Your task to perform on an android device: Search for "logitech g910" on costco.com, select the first entry, add it to the cart, then select checkout. Image 0: 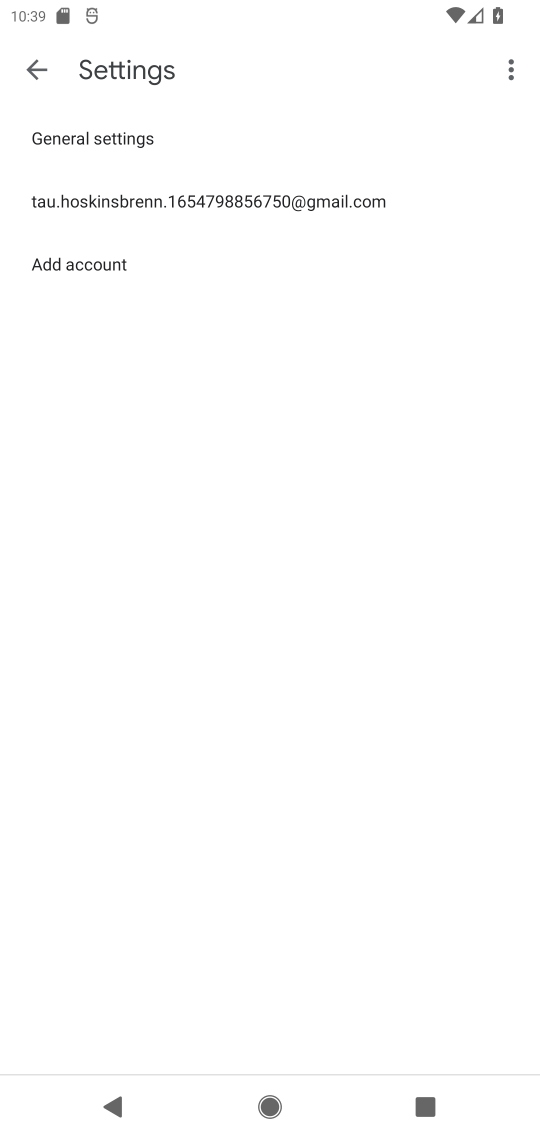
Step 0: press home button
Your task to perform on an android device: Search for "logitech g910" on costco.com, select the first entry, add it to the cart, then select checkout. Image 1: 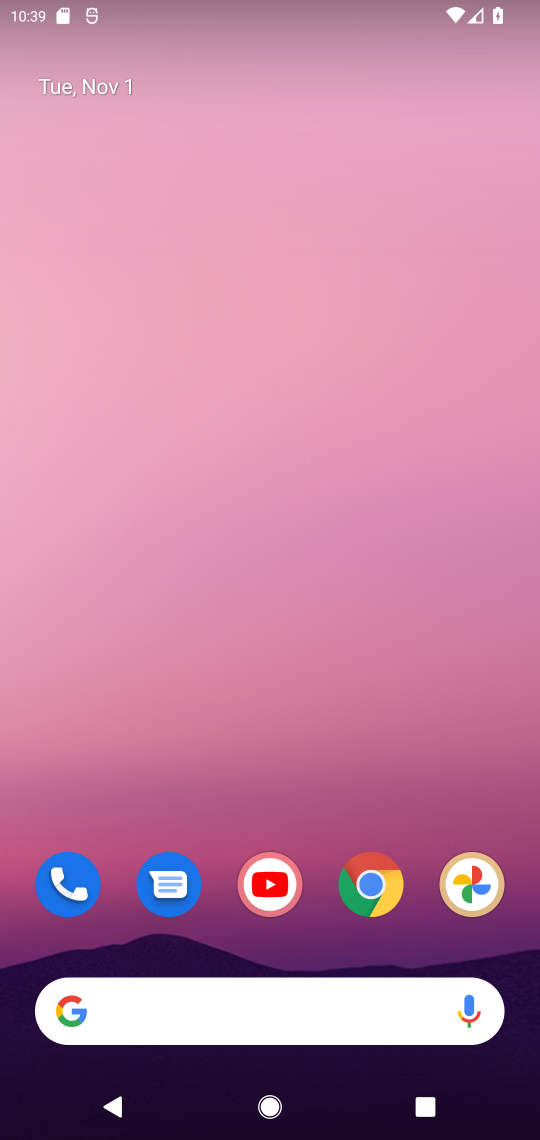
Step 1: click (379, 885)
Your task to perform on an android device: Search for "logitech g910" on costco.com, select the first entry, add it to the cart, then select checkout. Image 2: 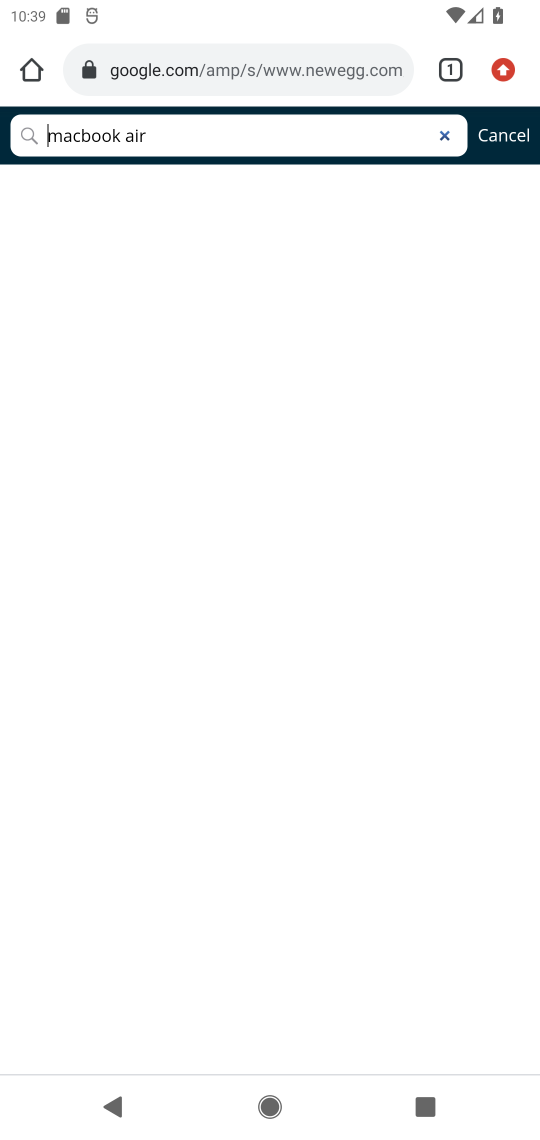
Step 2: click (216, 78)
Your task to perform on an android device: Search for "logitech g910" on costco.com, select the first entry, add it to the cart, then select checkout. Image 3: 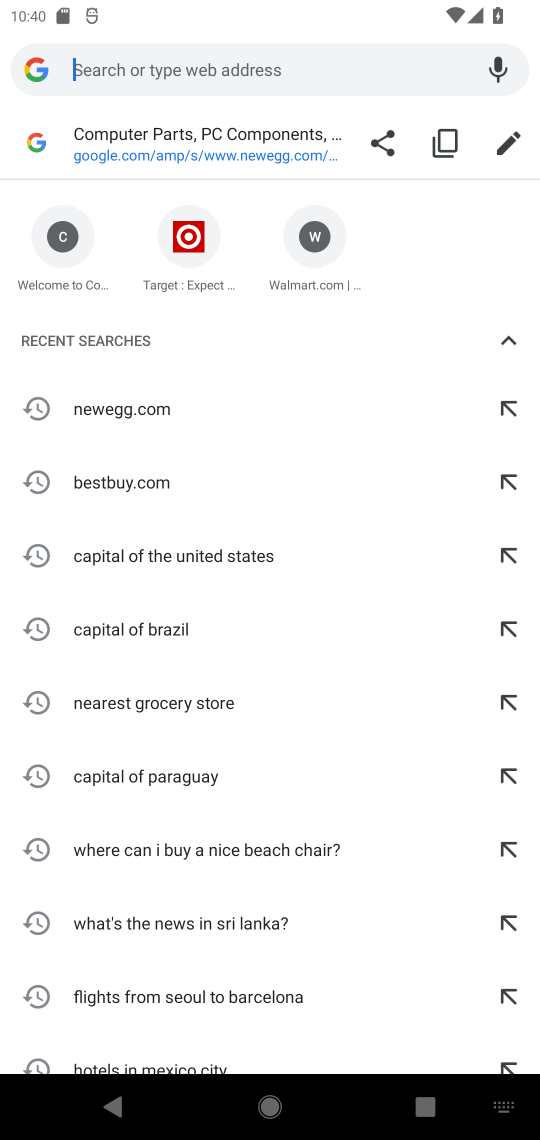
Step 3: click (176, 79)
Your task to perform on an android device: Search for "logitech g910" on costco.com, select the first entry, add it to the cart, then select checkout. Image 4: 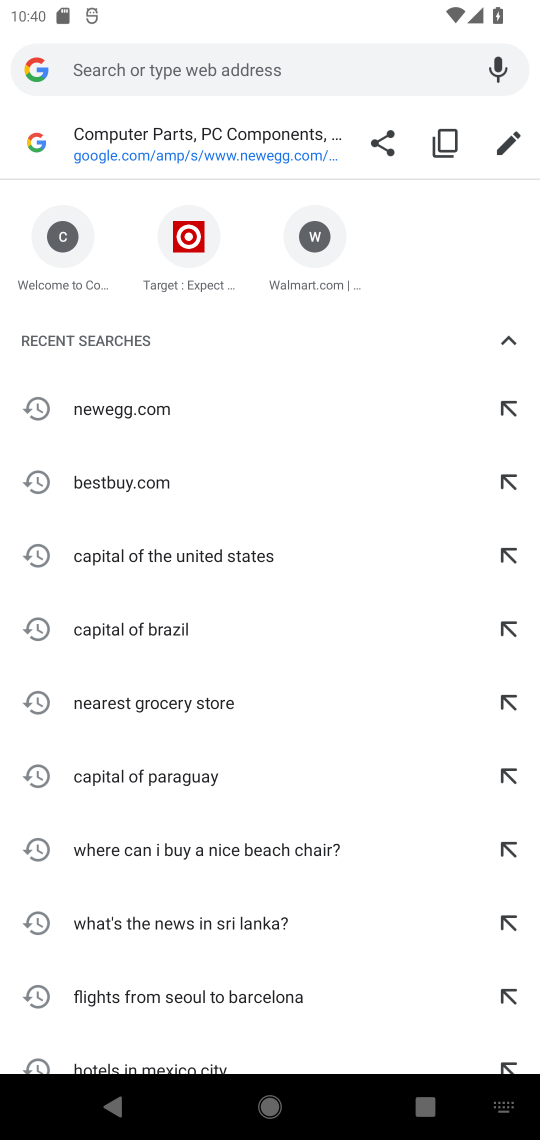
Step 4: type "costco.com"
Your task to perform on an android device: Search for "logitech g910" on costco.com, select the first entry, add it to the cart, then select checkout. Image 5: 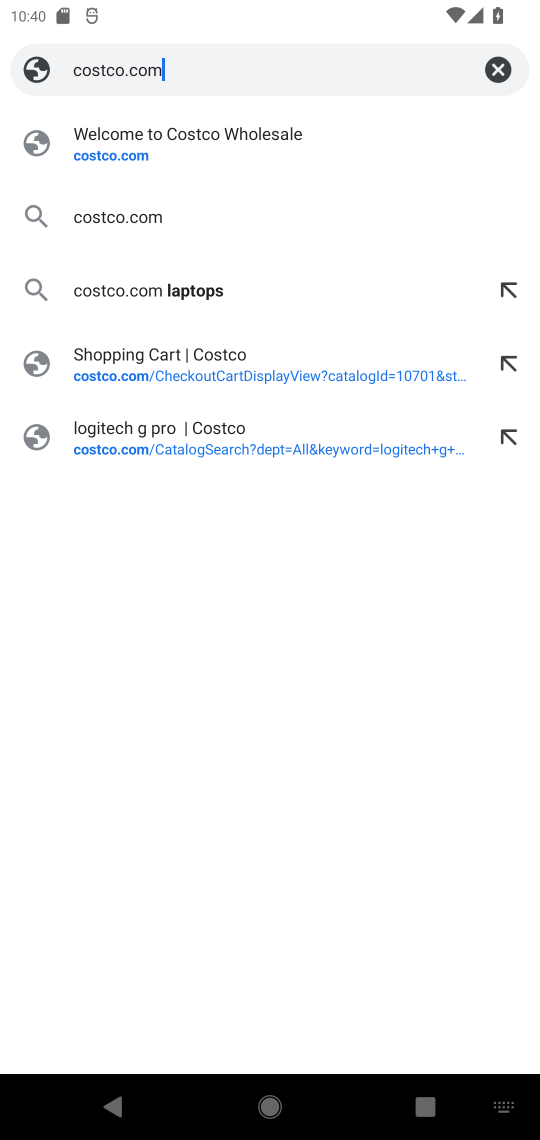
Step 5: click (113, 163)
Your task to perform on an android device: Search for "logitech g910" on costco.com, select the first entry, add it to the cart, then select checkout. Image 6: 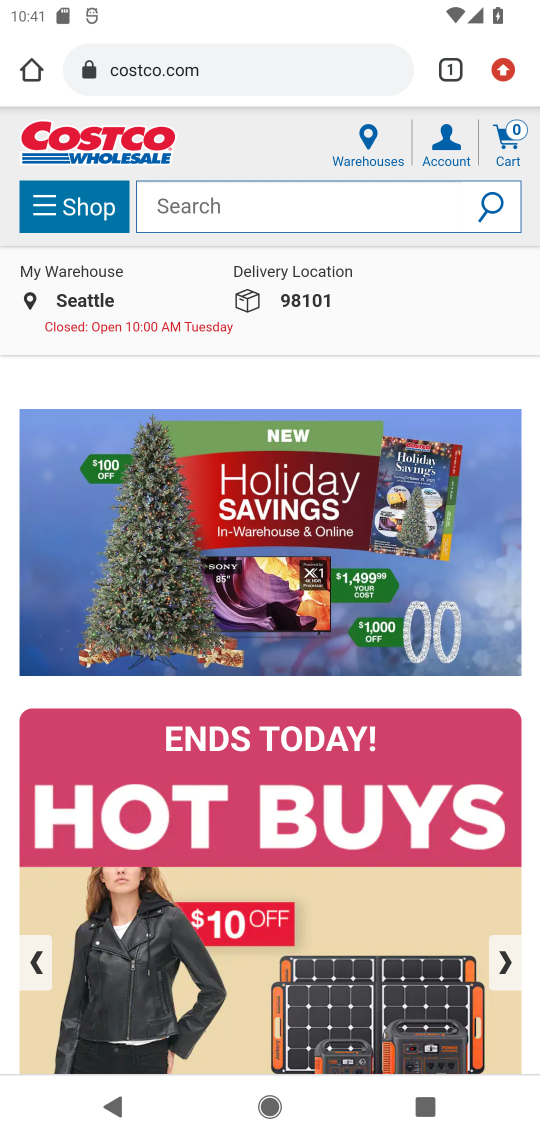
Step 6: click (177, 205)
Your task to perform on an android device: Search for "logitech g910" on costco.com, select the first entry, add it to the cart, then select checkout. Image 7: 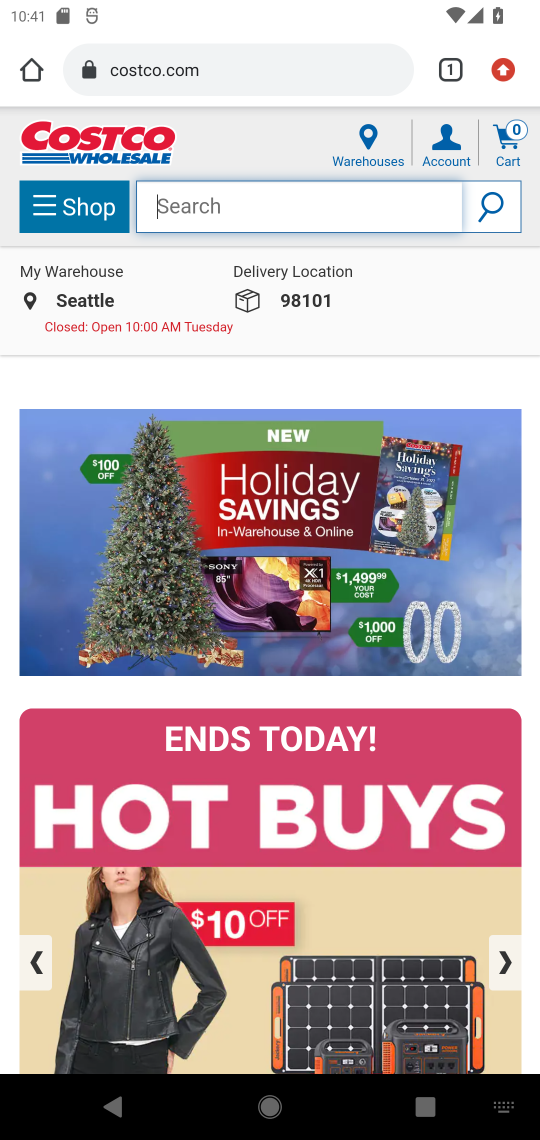
Step 7: type "logitech g910"
Your task to perform on an android device: Search for "logitech g910" on costco.com, select the first entry, add it to the cart, then select checkout. Image 8: 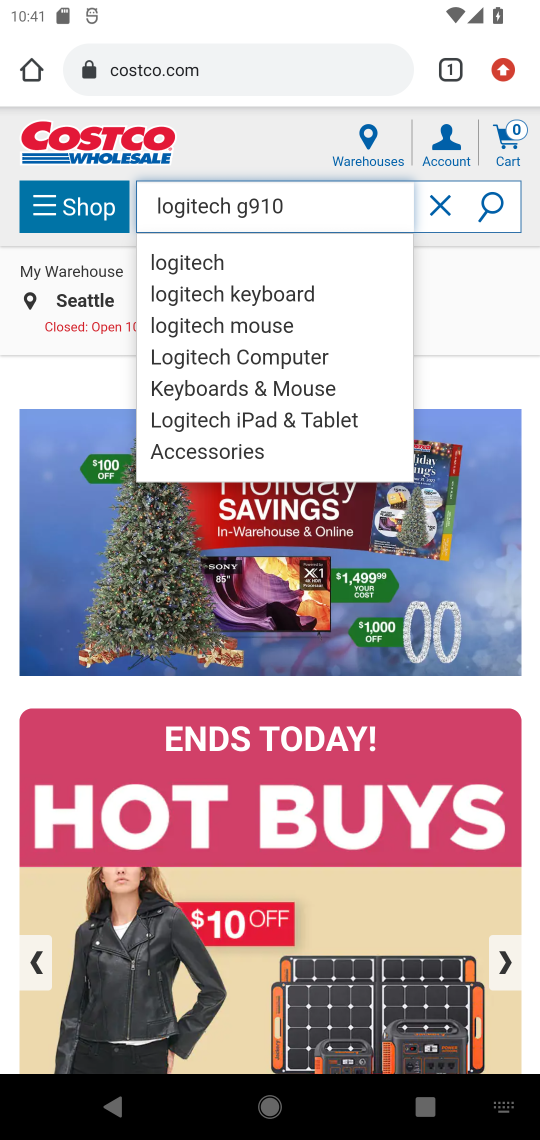
Step 8: click (484, 207)
Your task to perform on an android device: Search for "logitech g910" on costco.com, select the first entry, add it to the cart, then select checkout. Image 9: 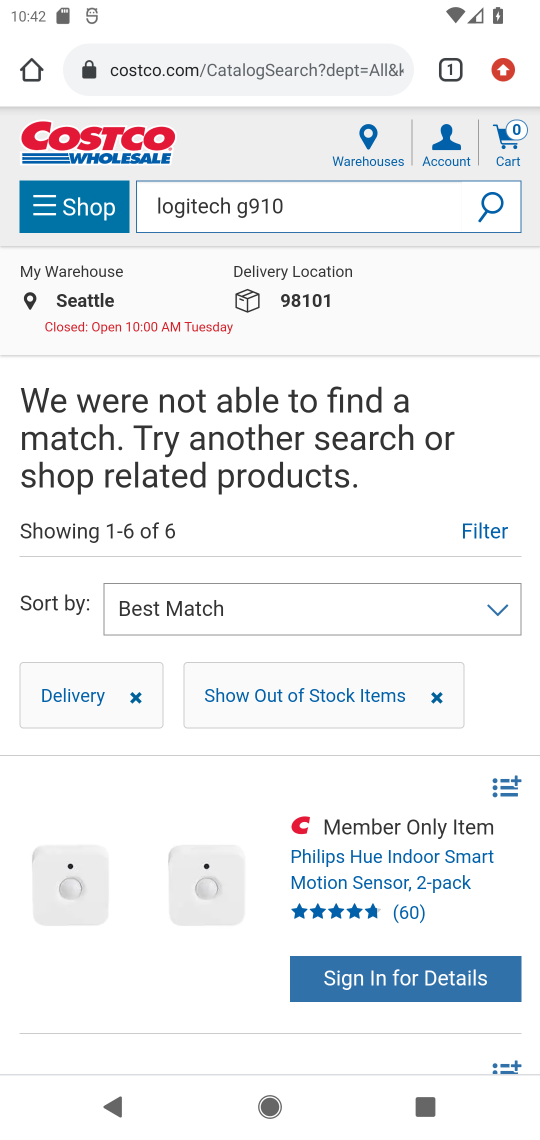
Step 9: task complete